Your task to perform on an android device: Open network settings Image 0: 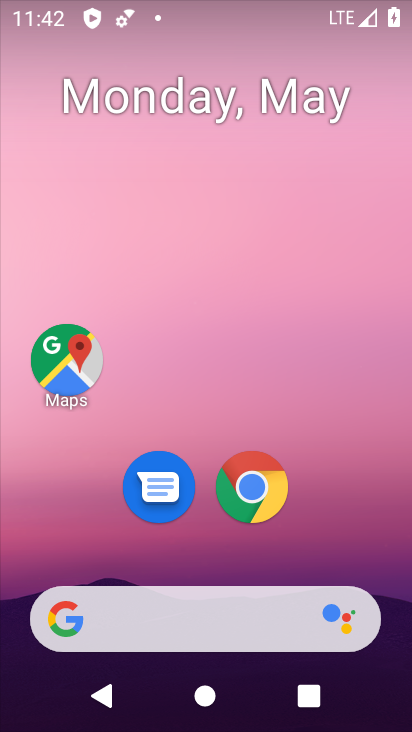
Step 0: drag from (46, 568) to (188, 248)
Your task to perform on an android device: Open network settings Image 1: 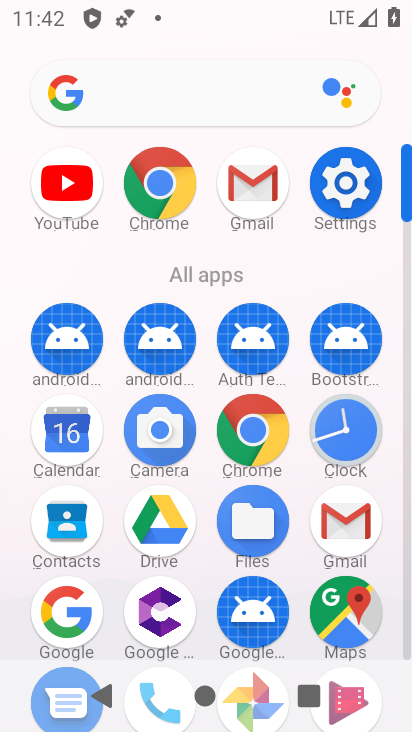
Step 1: click (339, 188)
Your task to perform on an android device: Open network settings Image 2: 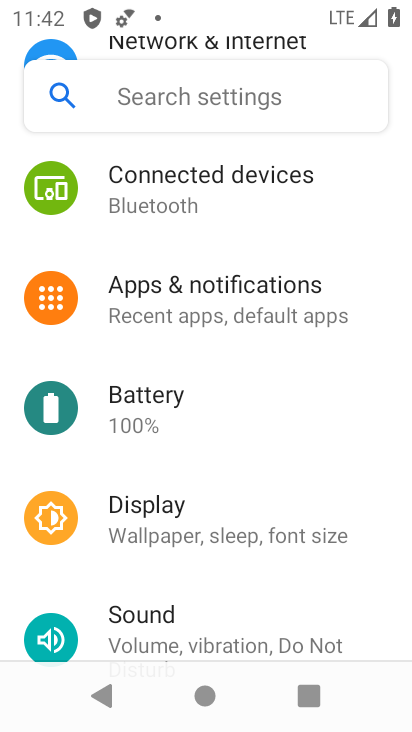
Step 2: drag from (179, 209) to (84, 619)
Your task to perform on an android device: Open network settings Image 3: 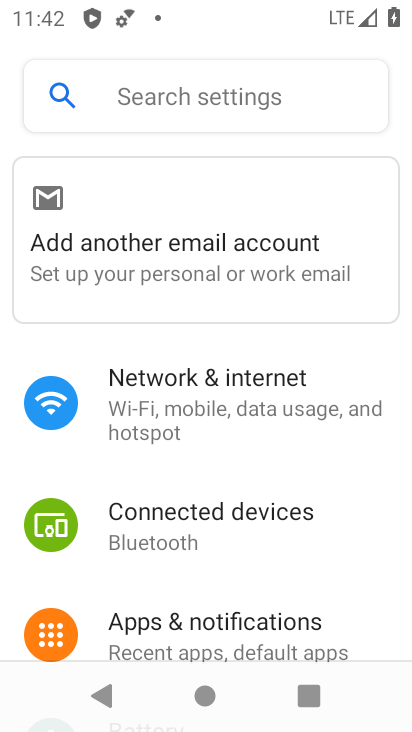
Step 3: click (116, 418)
Your task to perform on an android device: Open network settings Image 4: 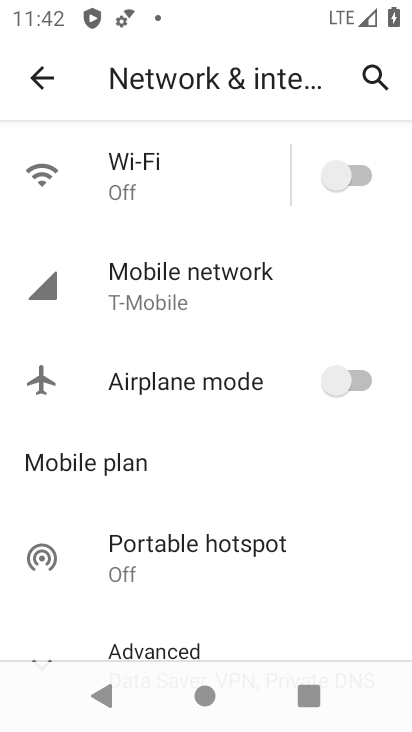
Step 4: click (182, 286)
Your task to perform on an android device: Open network settings Image 5: 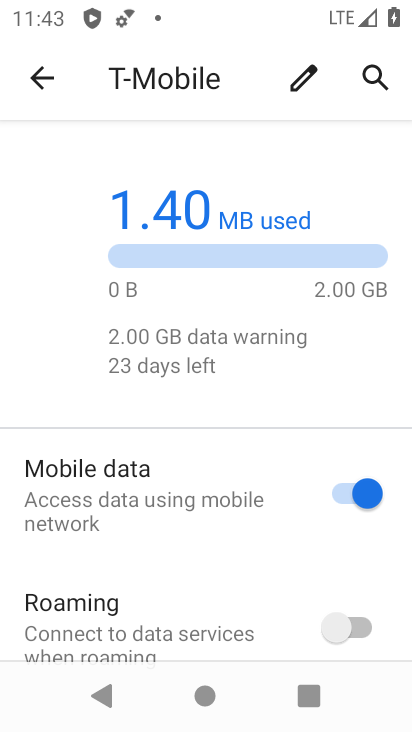
Step 5: task complete